Your task to perform on an android device: Search for apple airpods pro on bestbuy.com, select the first entry, and add it to the cart. Image 0: 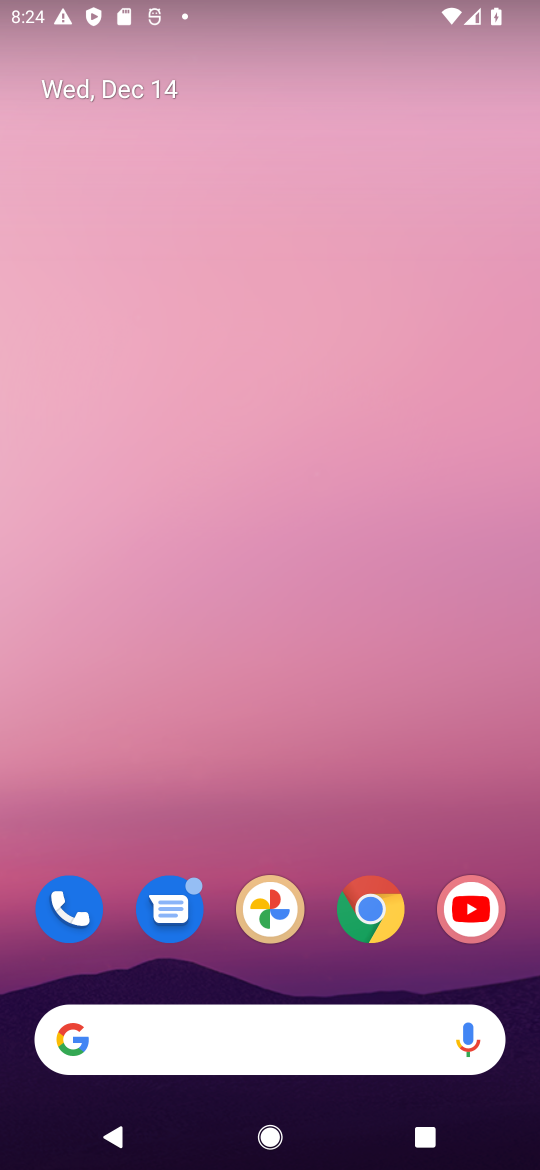
Step 0: click (374, 920)
Your task to perform on an android device: Search for apple airpods pro on bestbuy.com, select the first entry, and add it to the cart. Image 1: 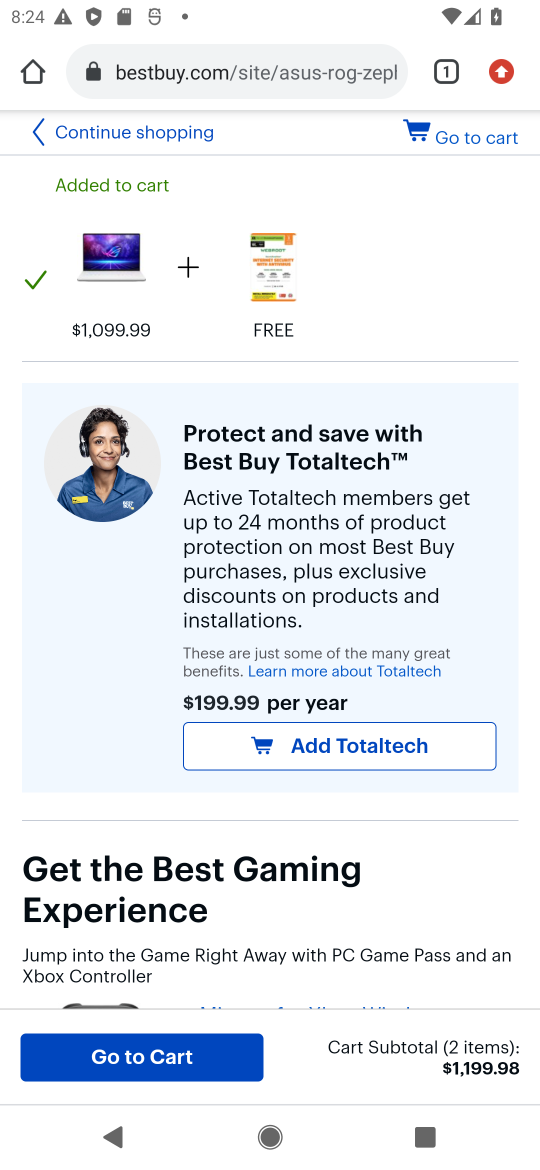
Step 1: click (233, 73)
Your task to perform on an android device: Search for apple airpods pro on bestbuy.com, select the first entry, and add it to the cart. Image 2: 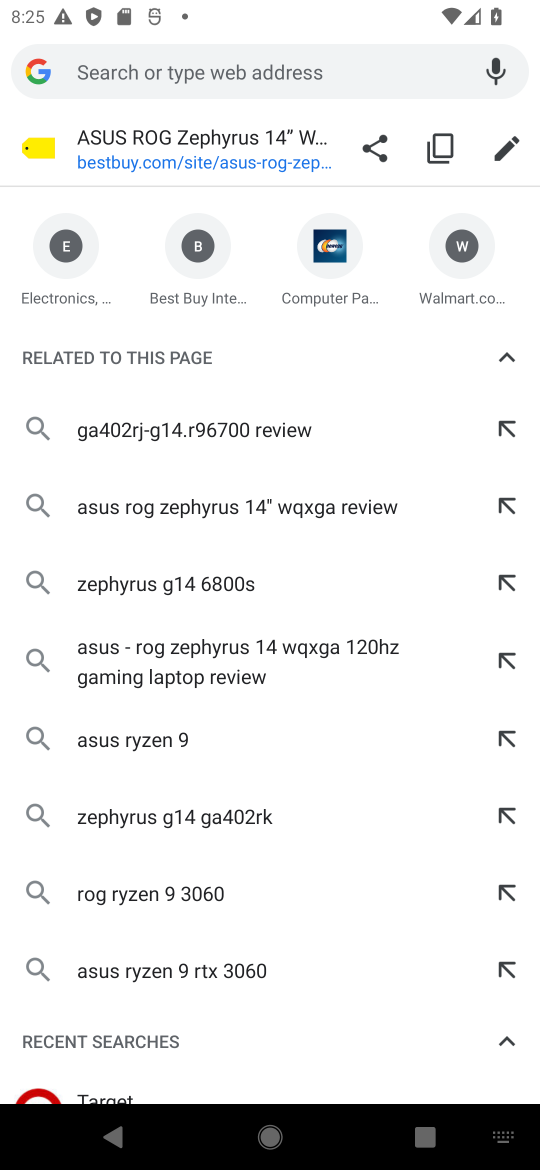
Step 2: type "bestbuy.com"
Your task to perform on an android device: Search for apple airpods pro on bestbuy.com, select the first entry, and add it to the cart. Image 3: 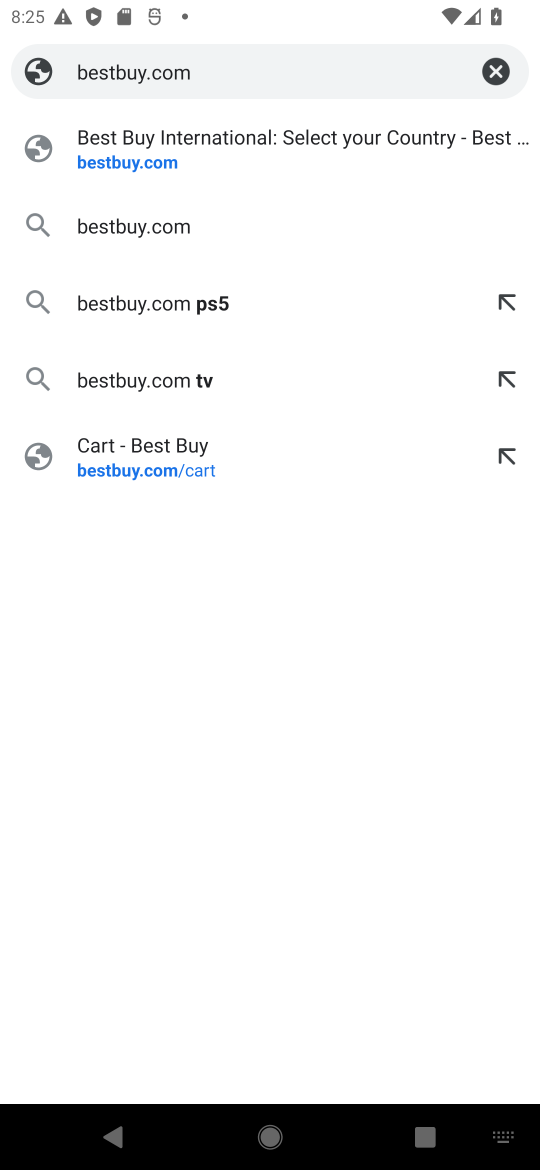
Step 3: click (178, 157)
Your task to perform on an android device: Search for apple airpods pro on bestbuy.com, select the first entry, and add it to the cart. Image 4: 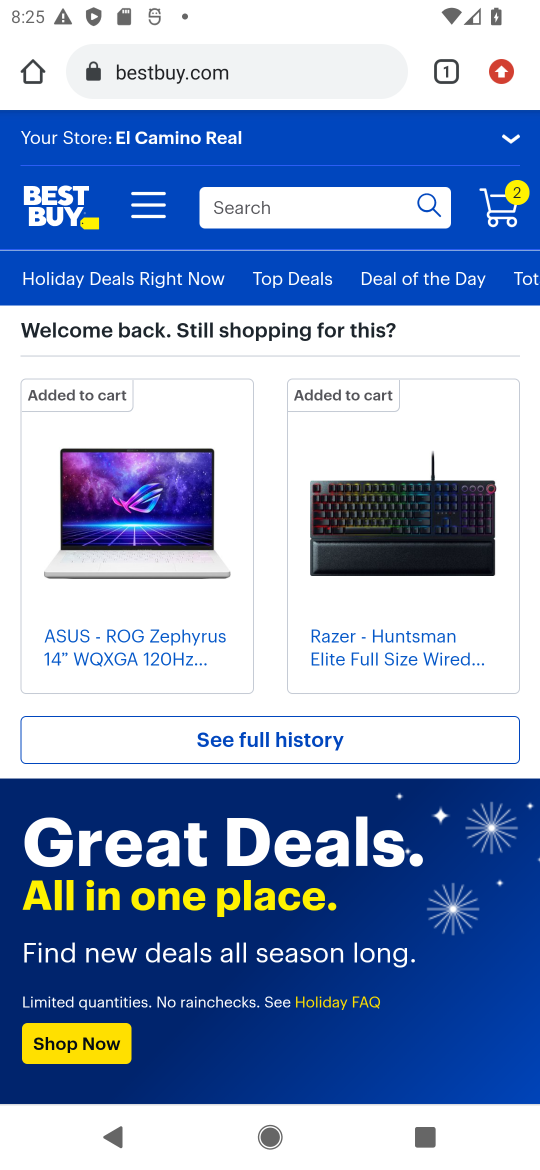
Step 4: click (281, 207)
Your task to perform on an android device: Search for apple airpods pro on bestbuy.com, select the first entry, and add it to the cart. Image 5: 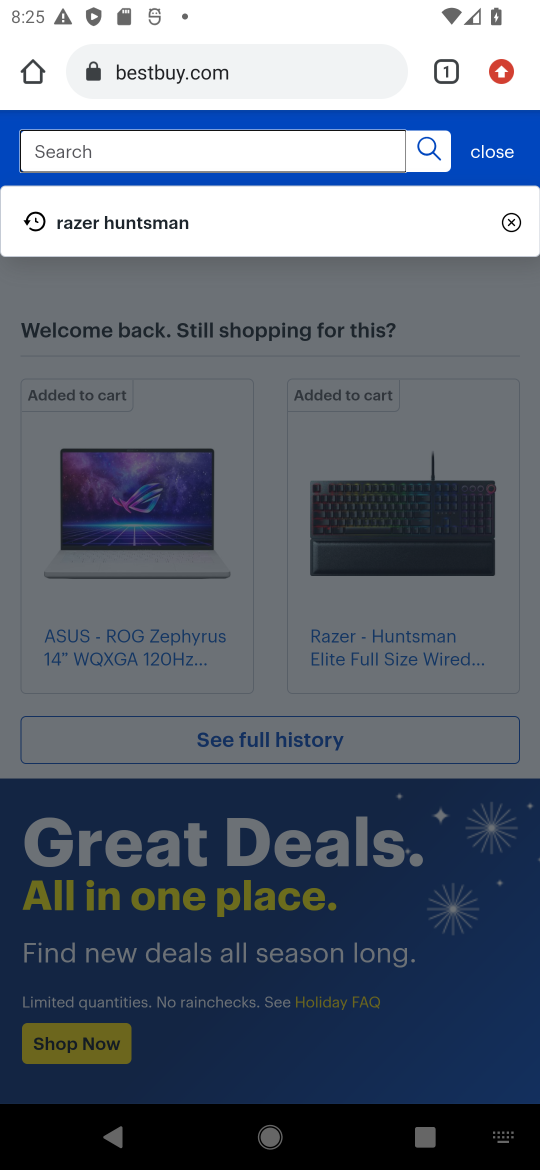
Step 5: type "apple airpods pro"
Your task to perform on an android device: Search for apple airpods pro on bestbuy.com, select the first entry, and add it to the cart. Image 6: 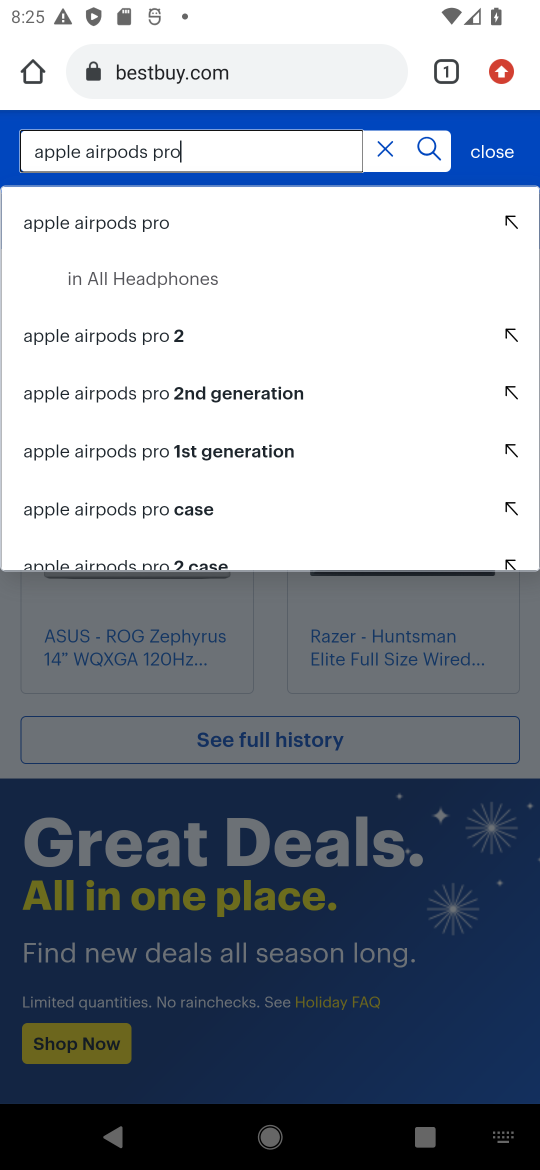
Step 6: press enter
Your task to perform on an android device: Search for apple airpods pro on bestbuy.com, select the first entry, and add it to the cart. Image 7: 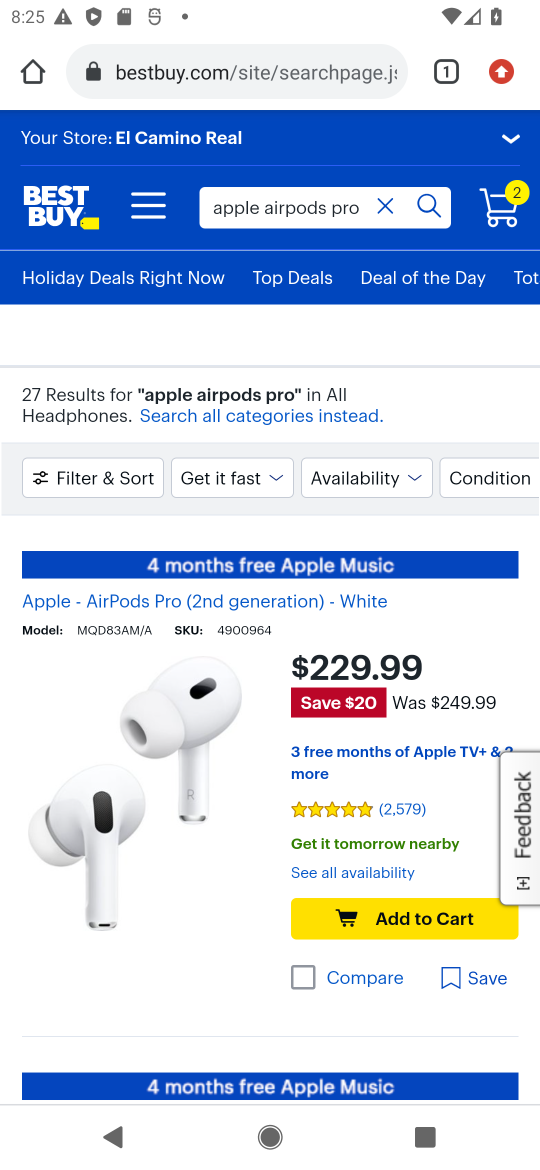
Step 7: drag from (200, 841) to (284, 482)
Your task to perform on an android device: Search for apple airpods pro on bestbuy.com, select the first entry, and add it to the cart. Image 8: 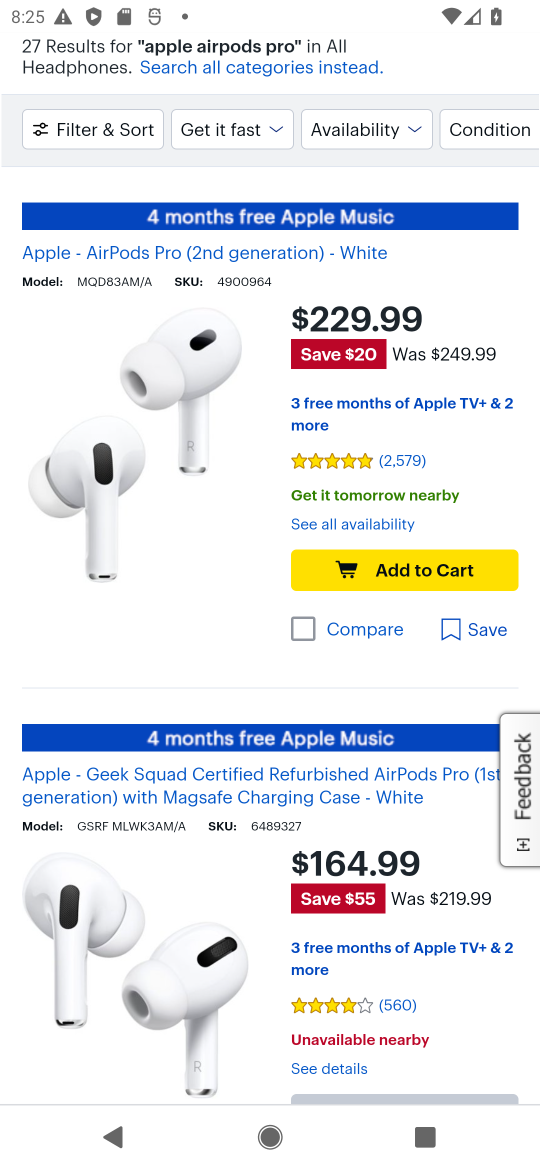
Step 8: click (416, 585)
Your task to perform on an android device: Search for apple airpods pro on bestbuy.com, select the first entry, and add it to the cart. Image 9: 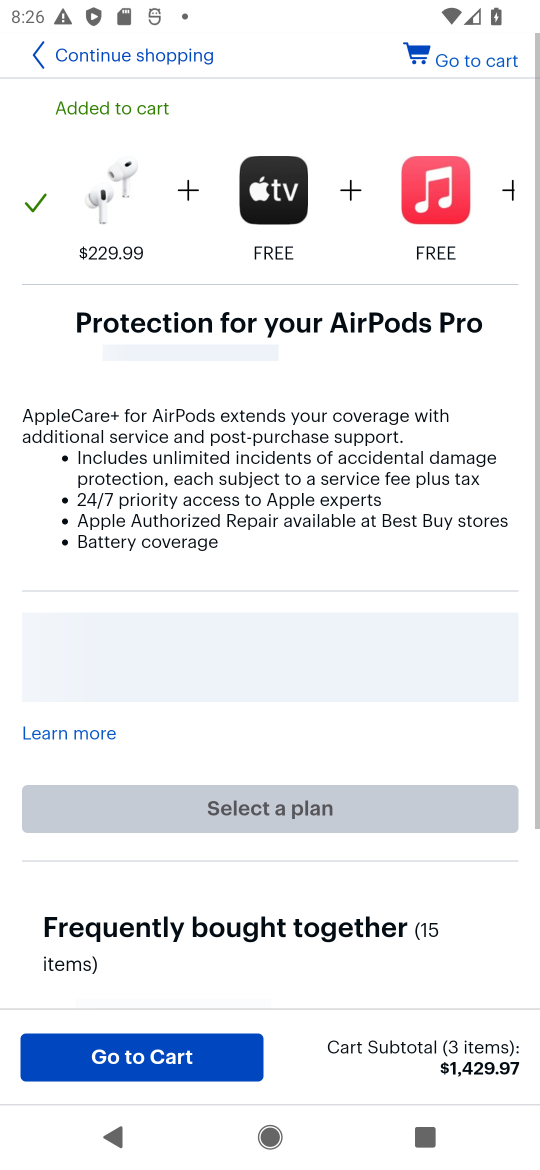
Step 9: click (119, 1062)
Your task to perform on an android device: Search for apple airpods pro on bestbuy.com, select the first entry, and add it to the cart. Image 10: 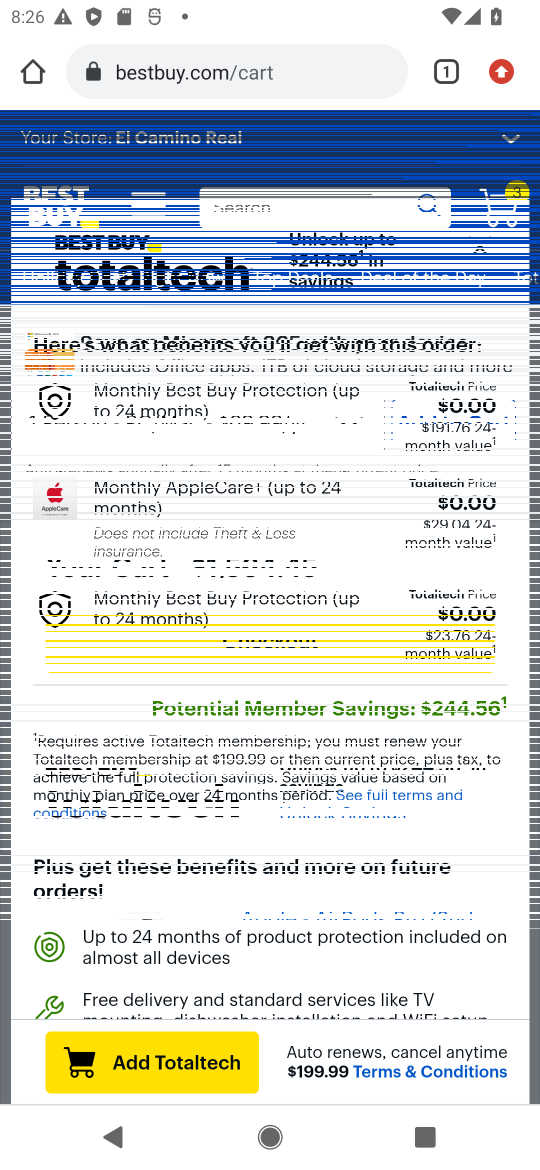
Step 10: click (108, 1093)
Your task to perform on an android device: Search for apple airpods pro on bestbuy.com, select the first entry, and add it to the cart. Image 11: 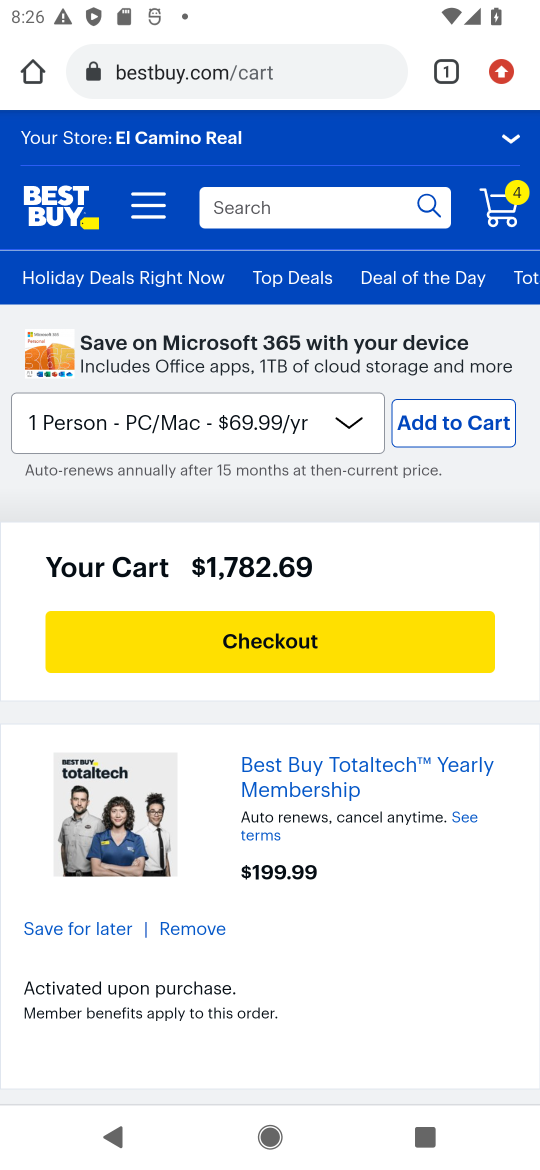
Step 11: click (309, 662)
Your task to perform on an android device: Search for apple airpods pro on bestbuy.com, select the first entry, and add it to the cart. Image 12: 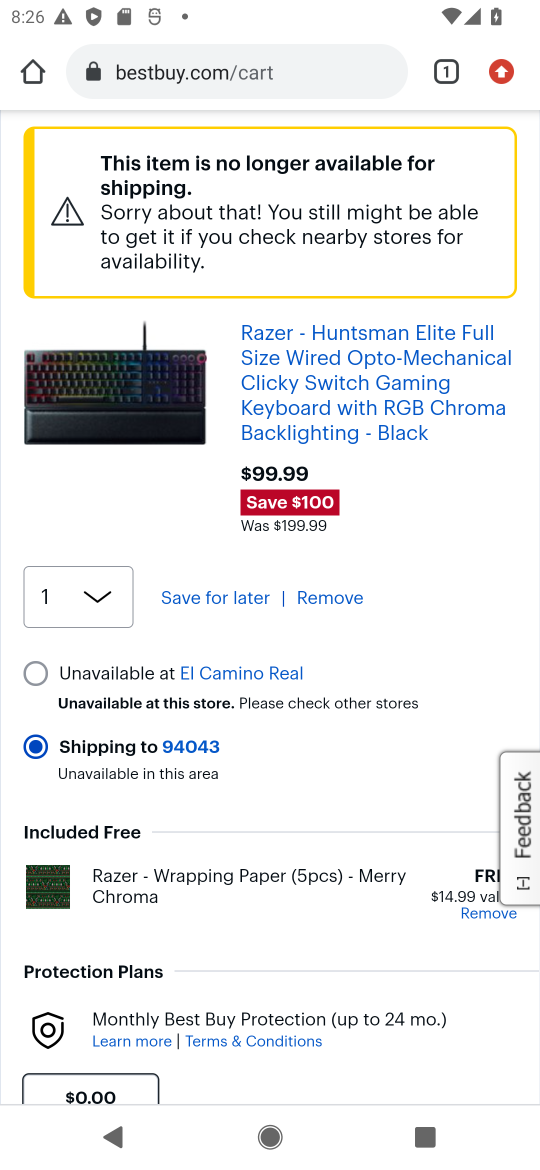
Step 12: task complete